Your task to perform on an android device: Search for shimano brake pads on Walmart Image 0: 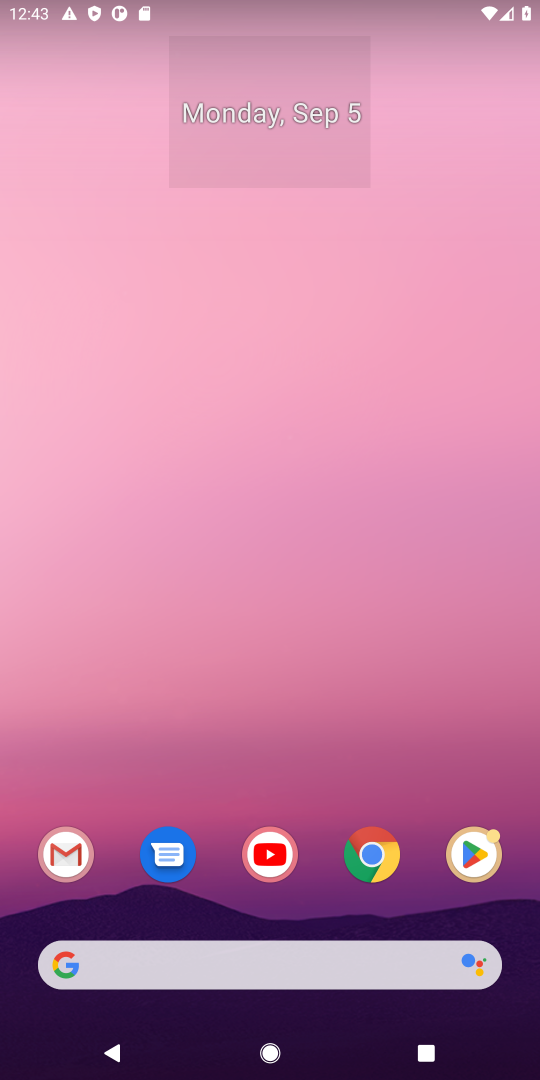
Step 0: press home button
Your task to perform on an android device: Search for shimano brake pads on Walmart Image 1: 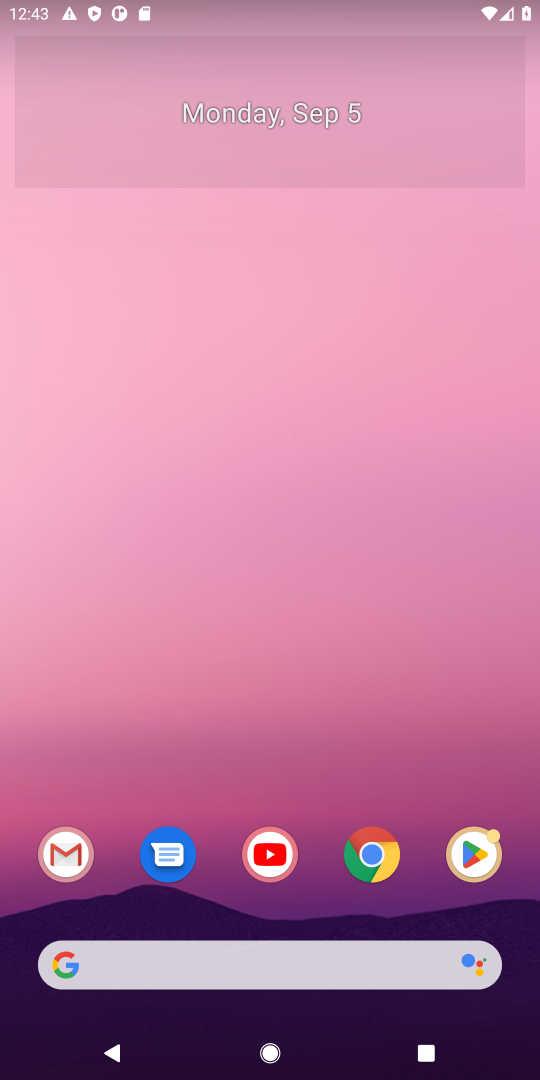
Step 1: click (360, 963)
Your task to perform on an android device: Search for shimano brake pads on Walmart Image 2: 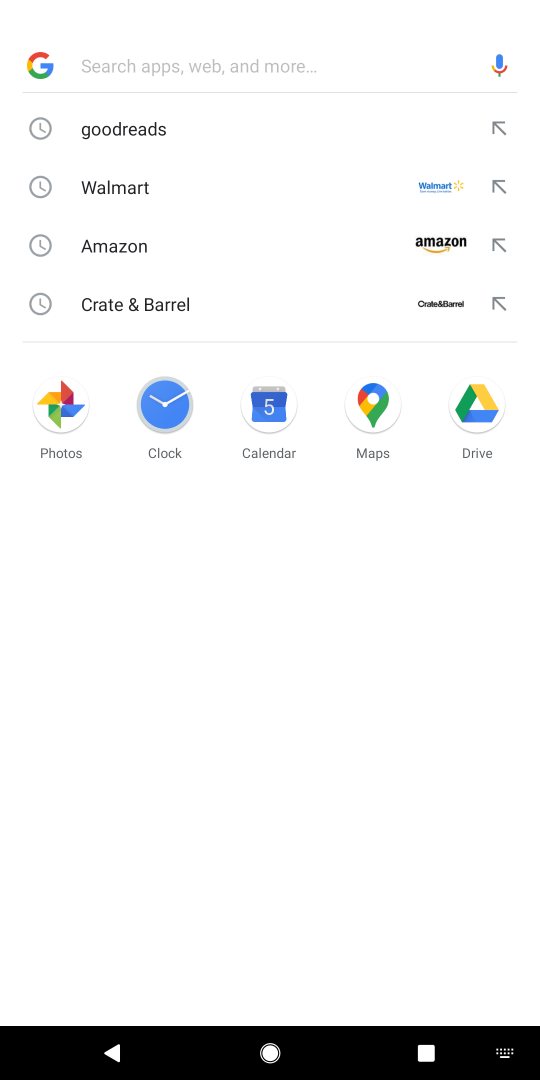
Step 2: press enter
Your task to perform on an android device: Search for shimano brake pads on Walmart Image 3: 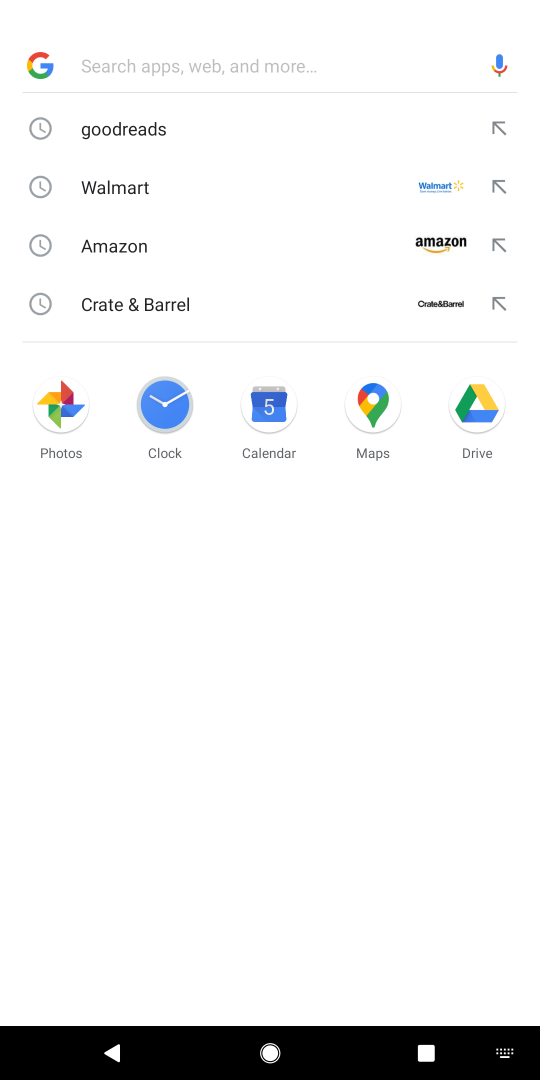
Step 3: type "walmart"
Your task to perform on an android device: Search for shimano brake pads on Walmart Image 4: 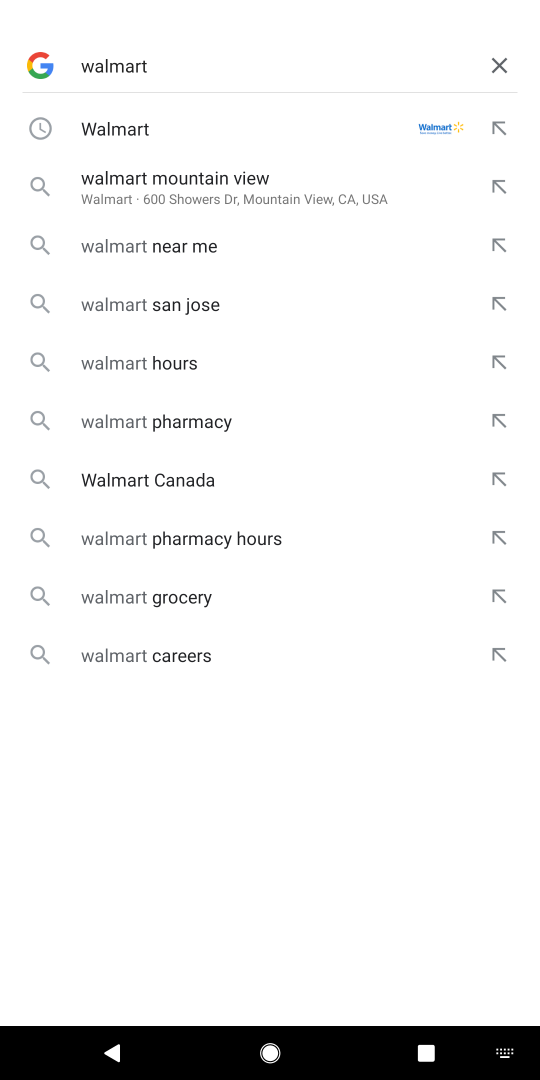
Step 4: click (114, 120)
Your task to perform on an android device: Search for shimano brake pads on Walmart Image 5: 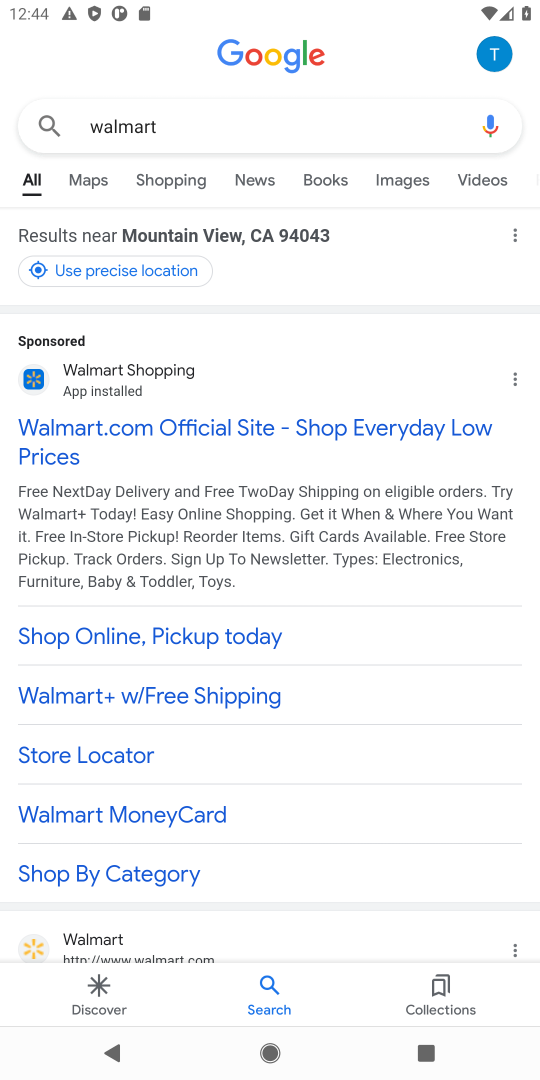
Step 5: click (177, 427)
Your task to perform on an android device: Search for shimano brake pads on Walmart Image 6: 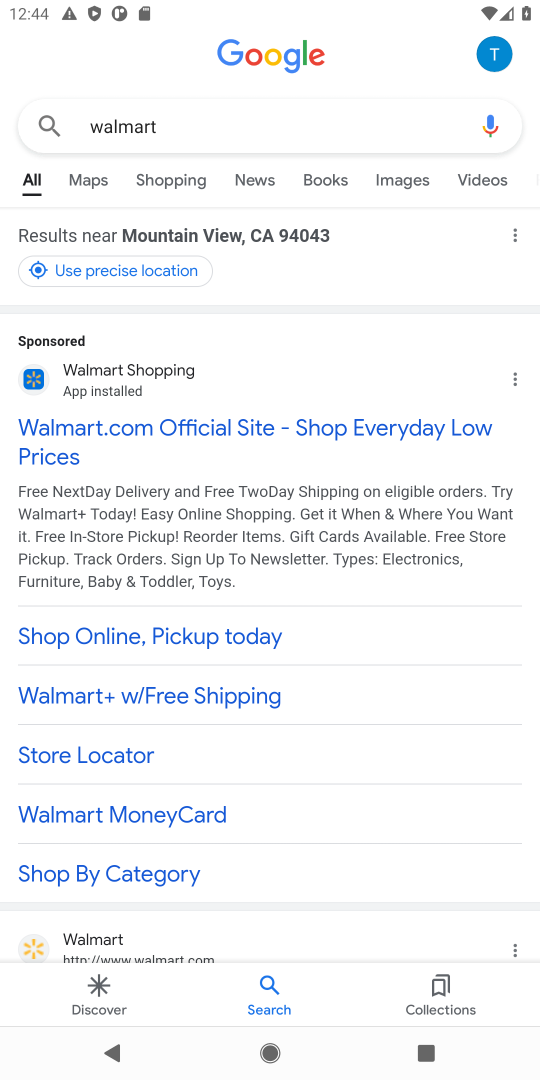
Step 6: click (101, 435)
Your task to perform on an android device: Search for shimano brake pads on Walmart Image 7: 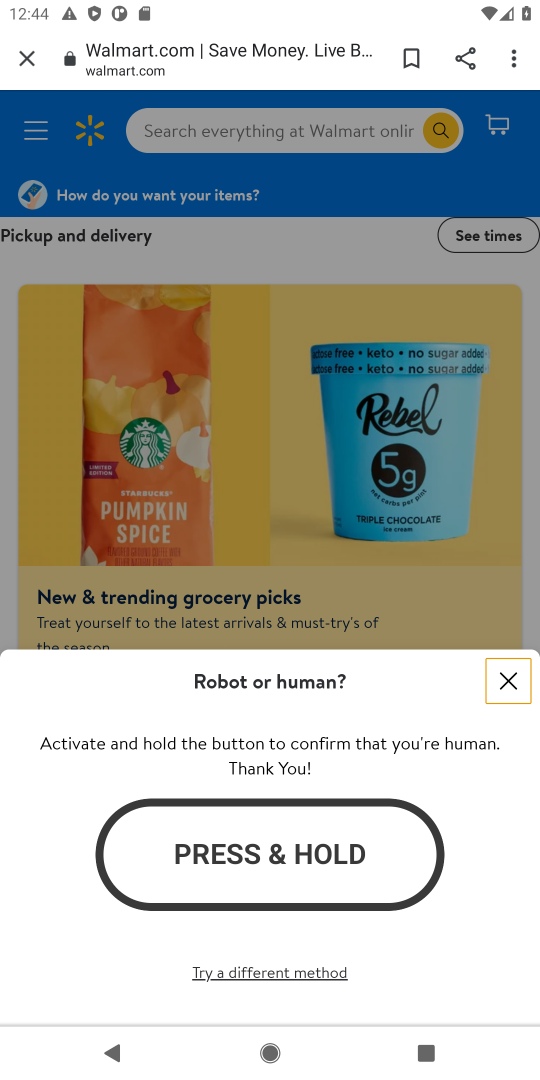
Step 7: click (512, 684)
Your task to perform on an android device: Search for shimano brake pads on Walmart Image 8: 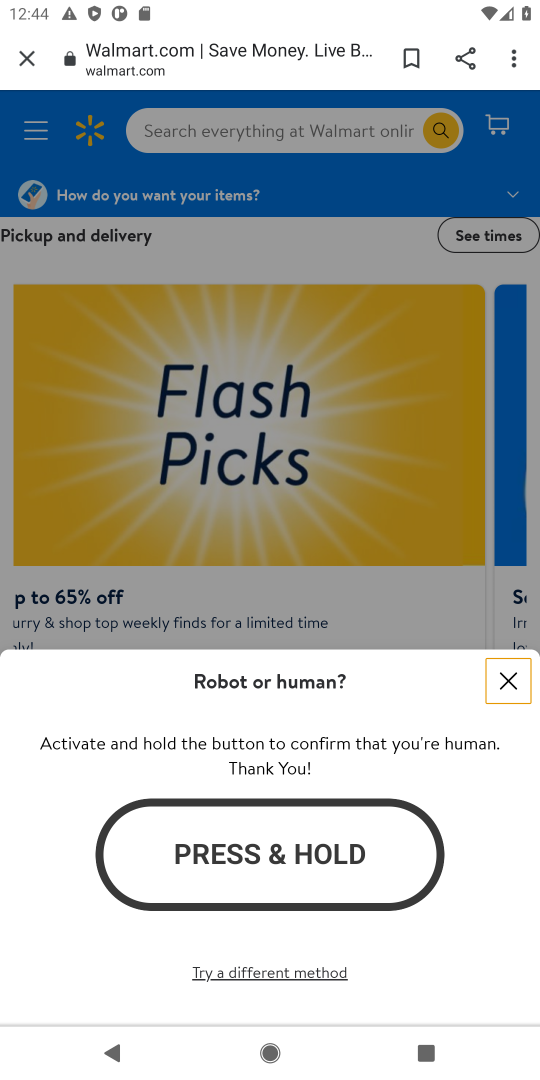
Step 8: click (511, 677)
Your task to perform on an android device: Search for shimano brake pads on Walmart Image 9: 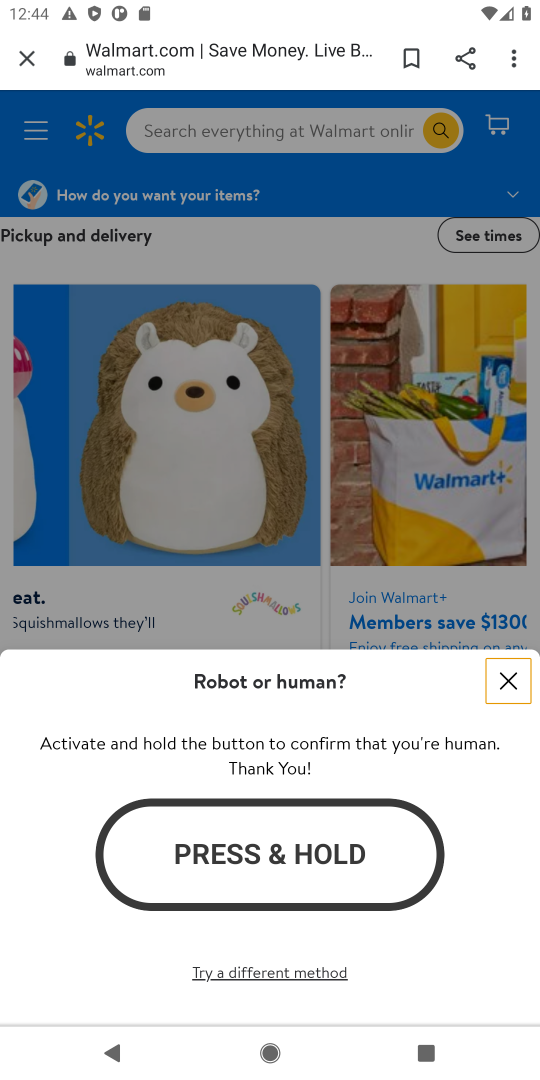
Step 9: click (504, 692)
Your task to perform on an android device: Search for shimano brake pads on Walmart Image 10: 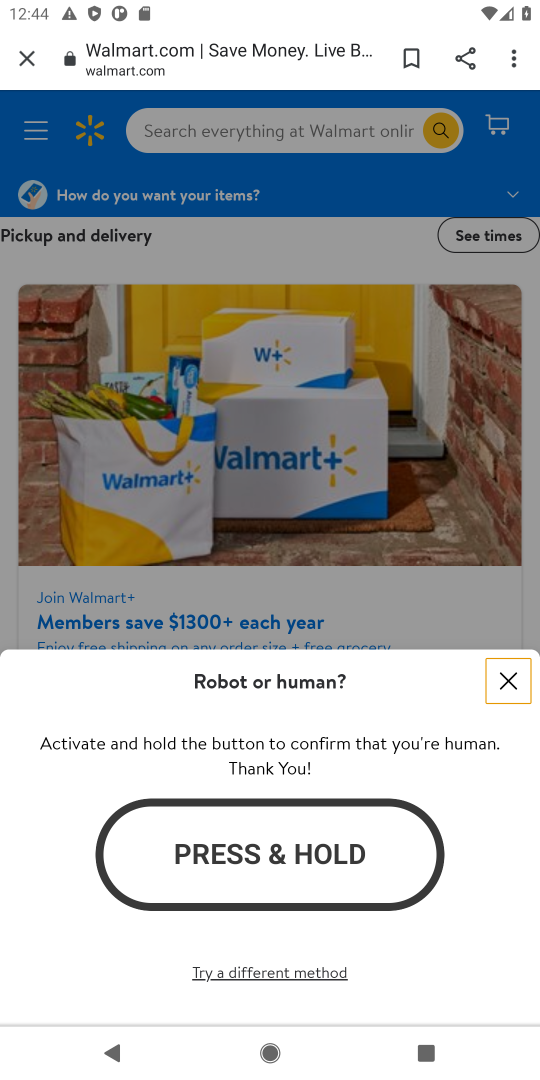
Step 10: click (504, 680)
Your task to perform on an android device: Search for shimano brake pads on Walmart Image 11: 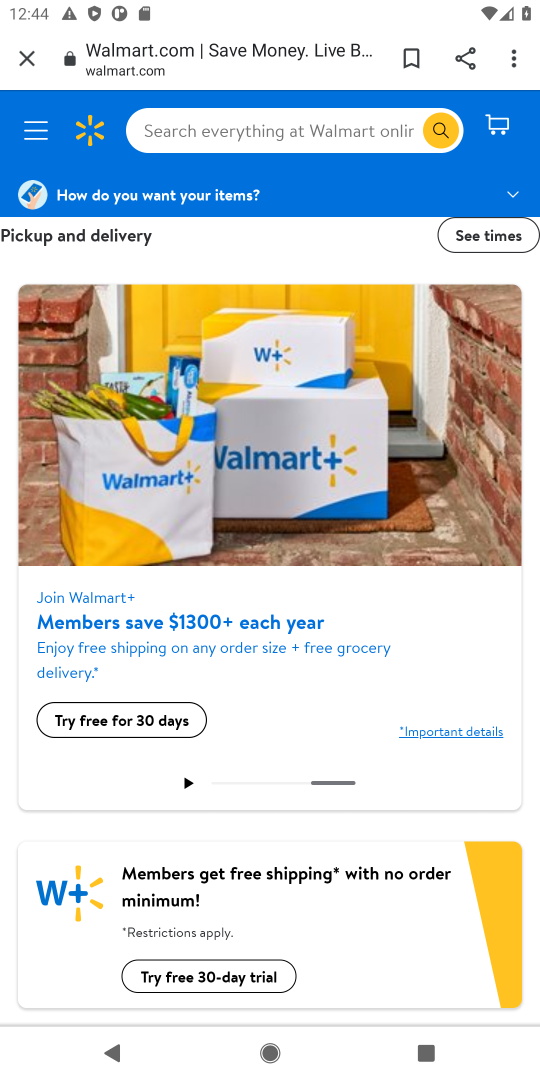
Step 11: click (197, 129)
Your task to perform on an android device: Search for shimano brake pads on Walmart Image 12: 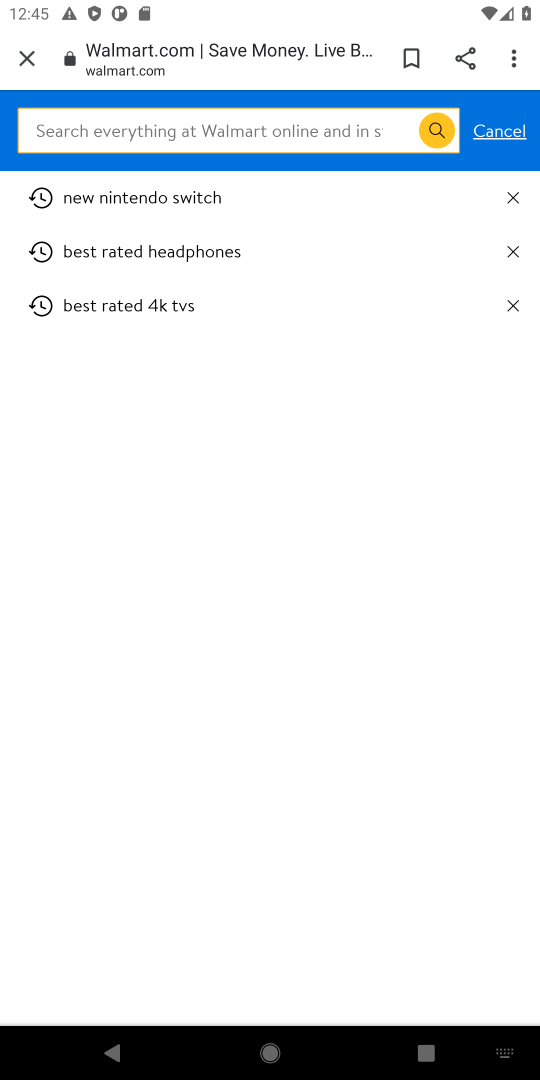
Step 12: type "shimano brakes pads"
Your task to perform on an android device: Search for shimano brake pads on Walmart Image 13: 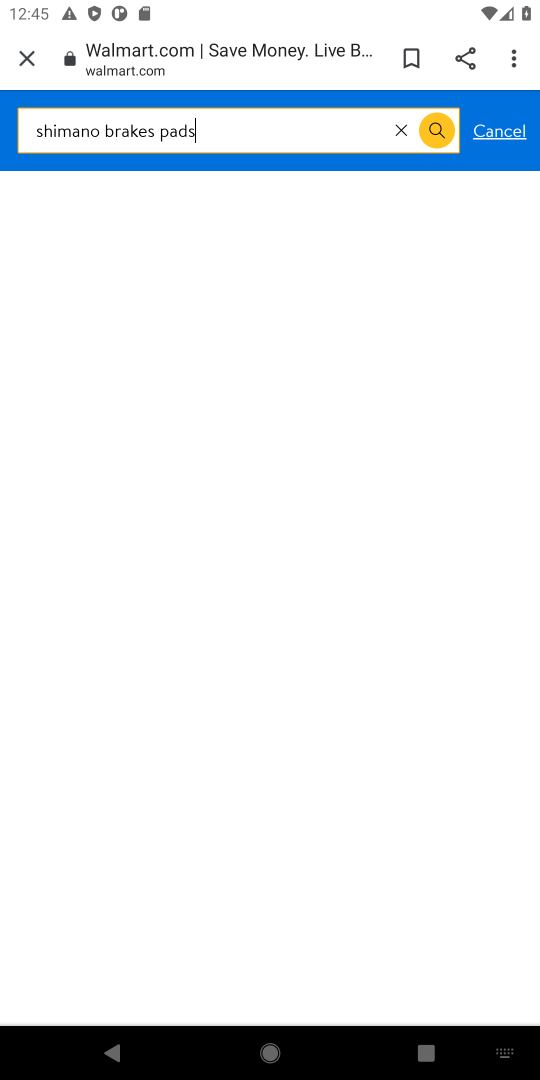
Step 13: press enter
Your task to perform on an android device: Search for shimano brake pads on Walmart Image 14: 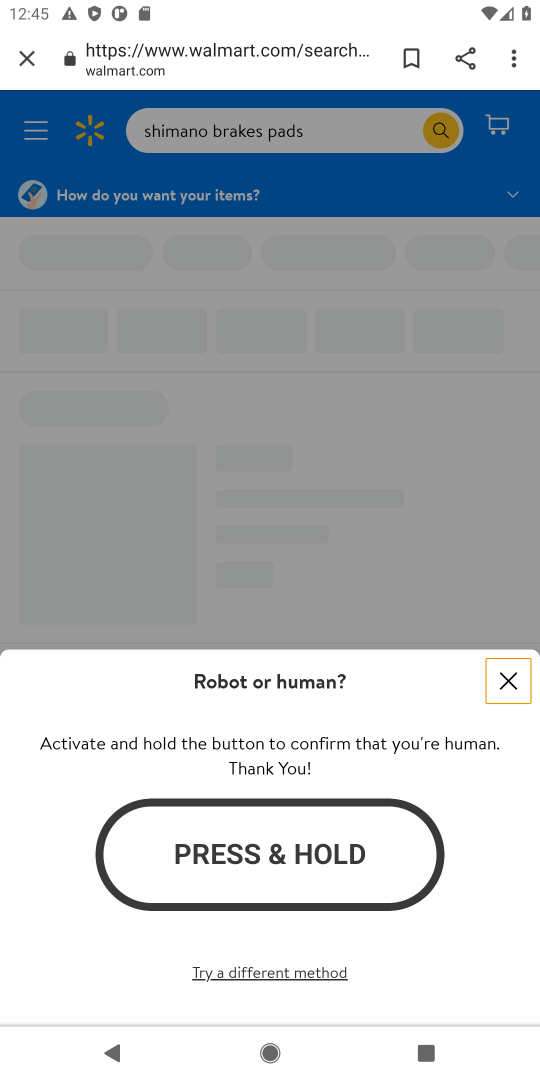
Step 14: click (508, 683)
Your task to perform on an android device: Search for shimano brake pads on Walmart Image 15: 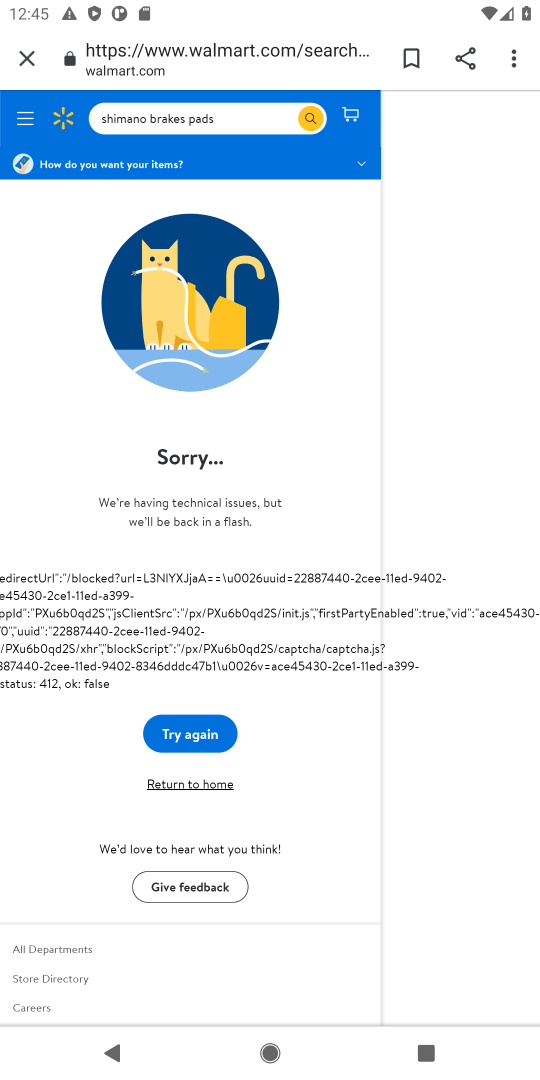
Step 15: task complete